Your task to perform on an android device: open app "Speedtest by Ookla" (install if not already installed) Image 0: 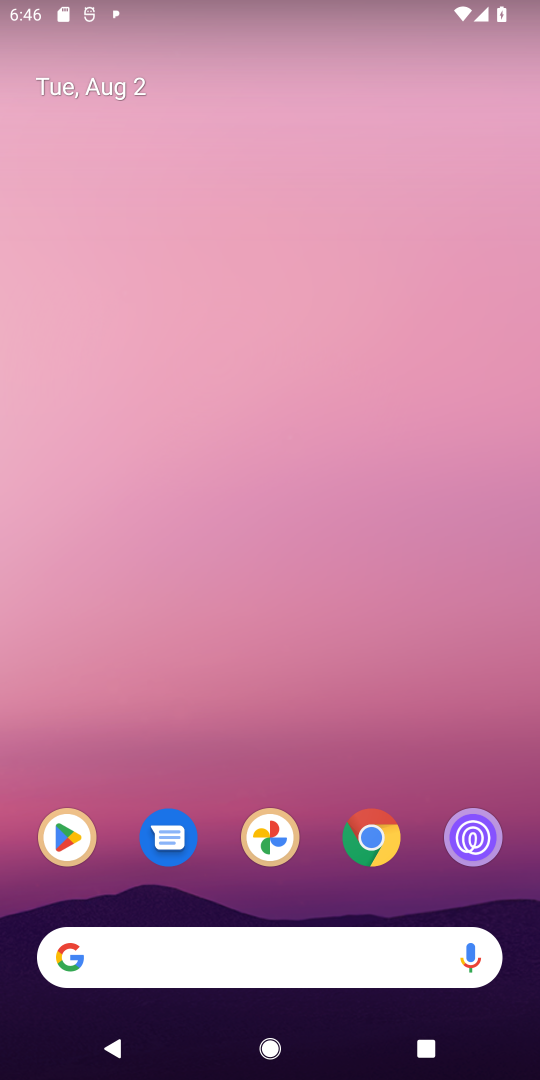
Step 0: click (70, 807)
Your task to perform on an android device: open app "Speedtest by Ookla" (install if not already installed) Image 1: 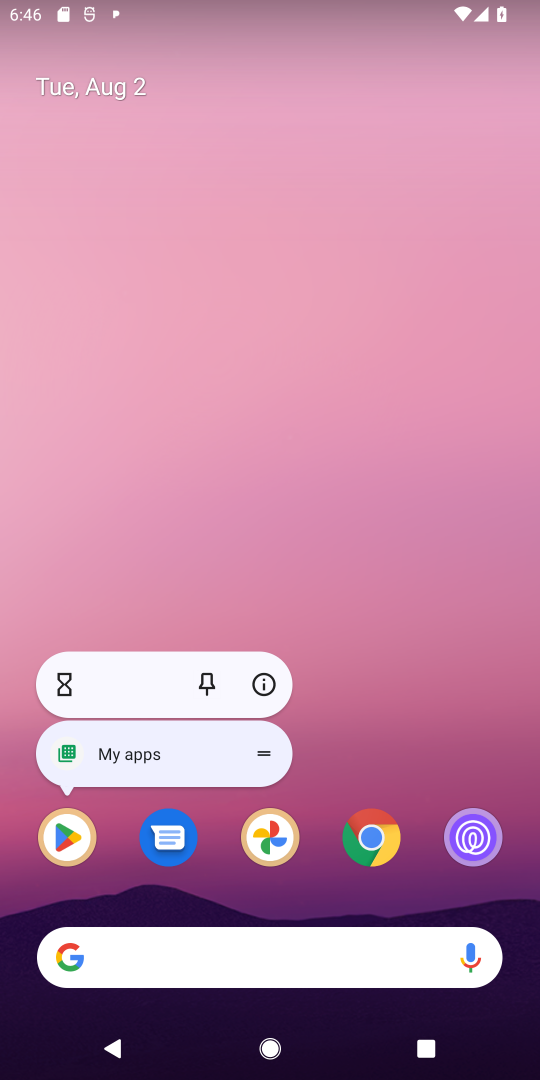
Step 1: click (49, 857)
Your task to perform on an android device: open app "Speedtest by Ookla" (install if not already installed) Image 2: 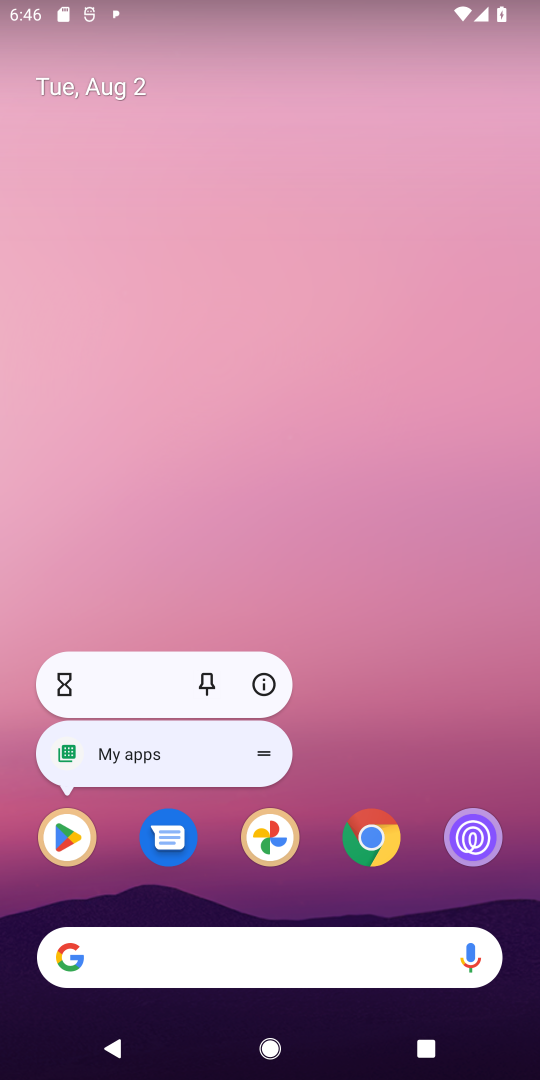
Step 2: click (72, 835)
Your task to perform on an android device: open app "Speedtest by Ookla" (install if not already installed) Image 3: 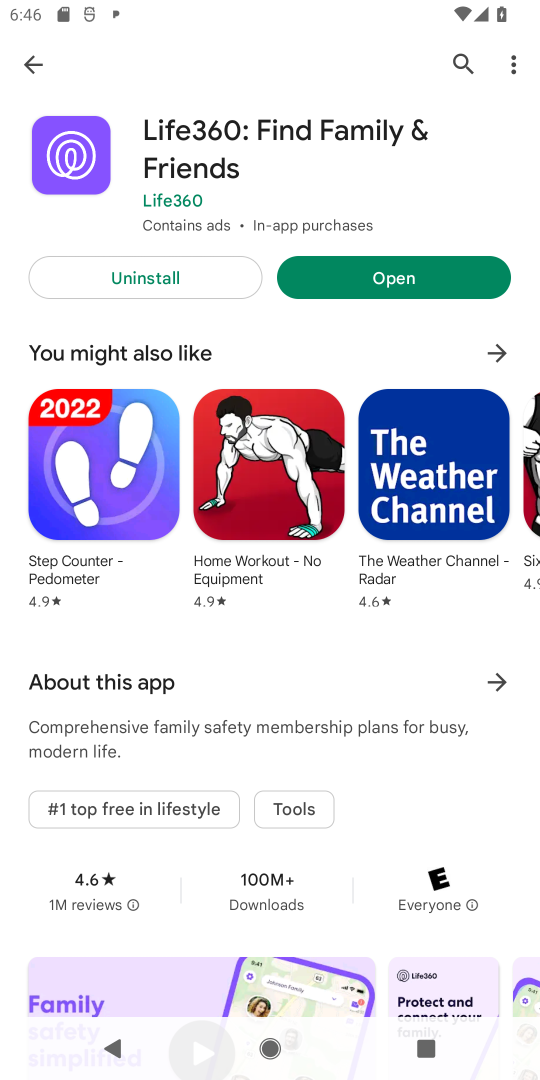
Step 3: click (449, 66)
Your task to perform on an android device: open app "Speedtest by Ookla" (install if not already installed) Image 4: 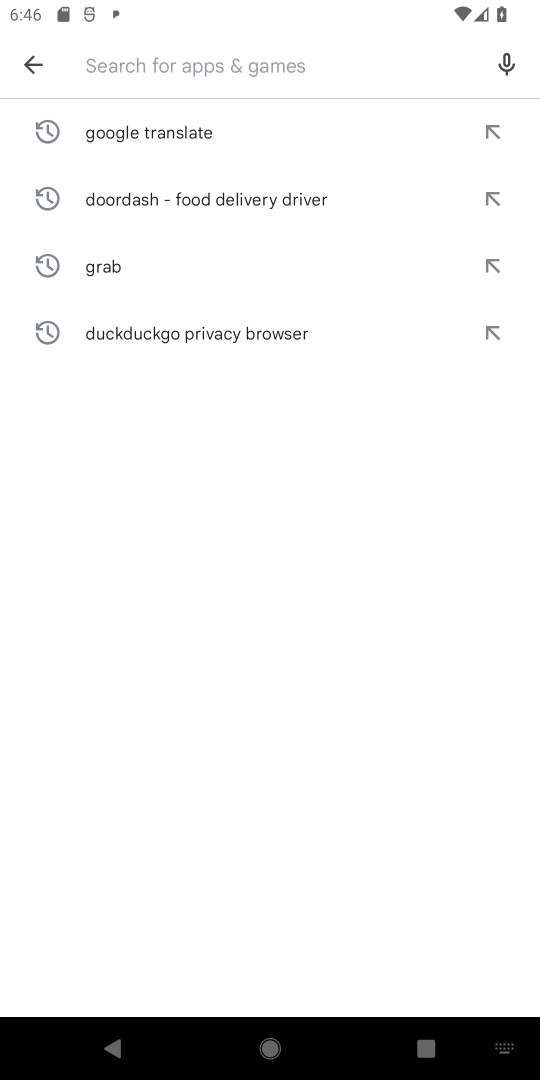
Step 4: type "Speedtest by Ookla"
Your task to perform on an android device: open app "Speedtest by Ookla" (install if not already installed) Image 5: 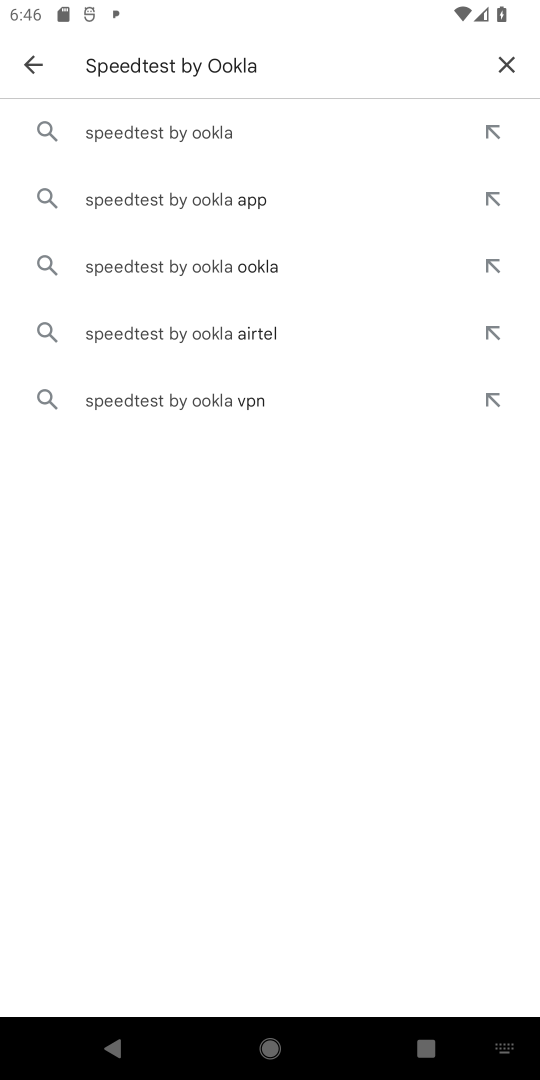
Step 5: click (179, 137)
Your task to perform on an android device: open app "Speedtest by Ookla" (install if not already installed) Image 6: 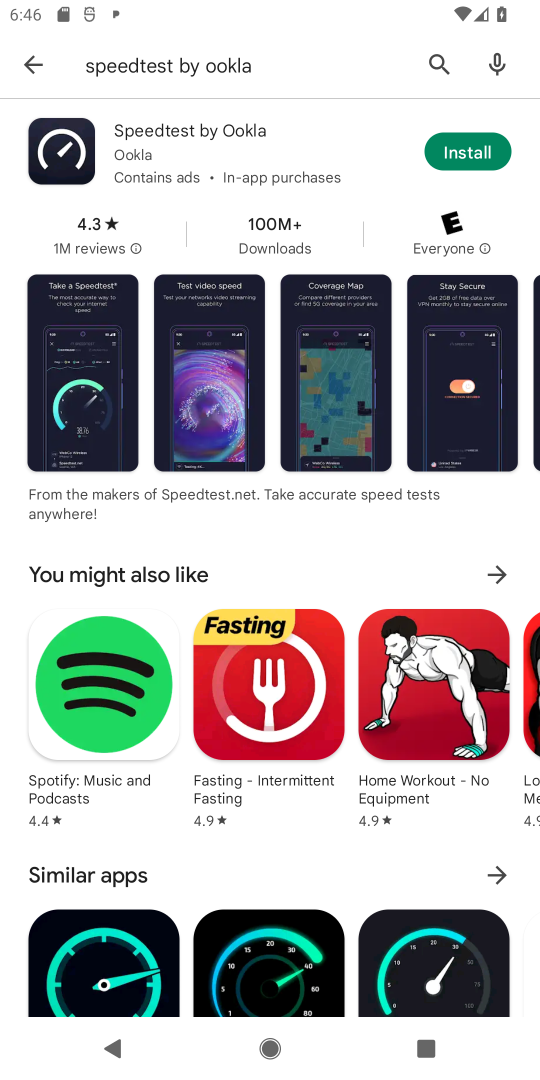
Step 6: click (460, 160)
Your task to perform on an android device: open app "Speedtest by Ookla" (install if not already installed) Image 7: 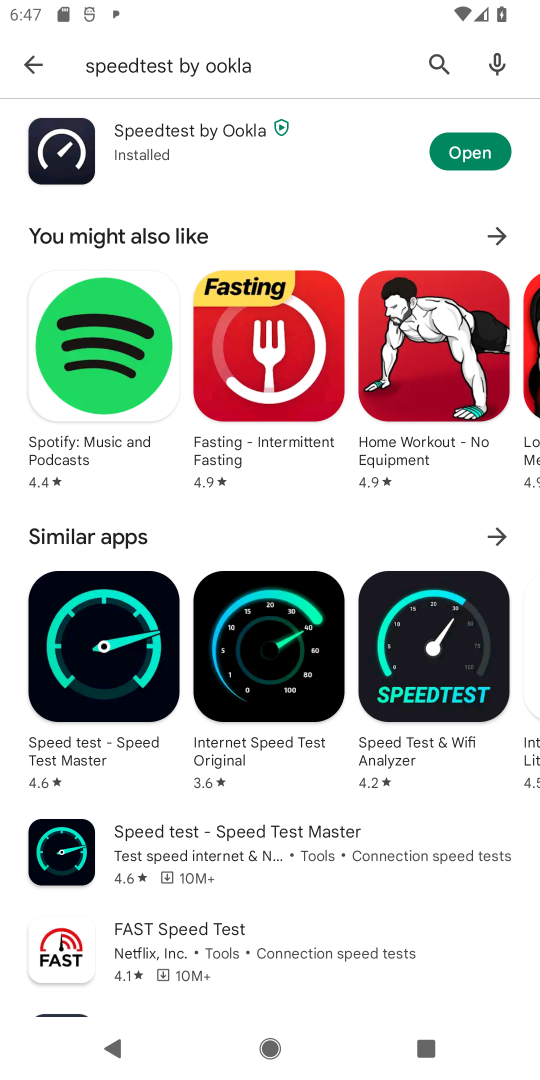
Step 7: click (476, 165)
Your task to perform on an android device: open app "Speedtest by Ookla" (install if not already installed) Image 8: 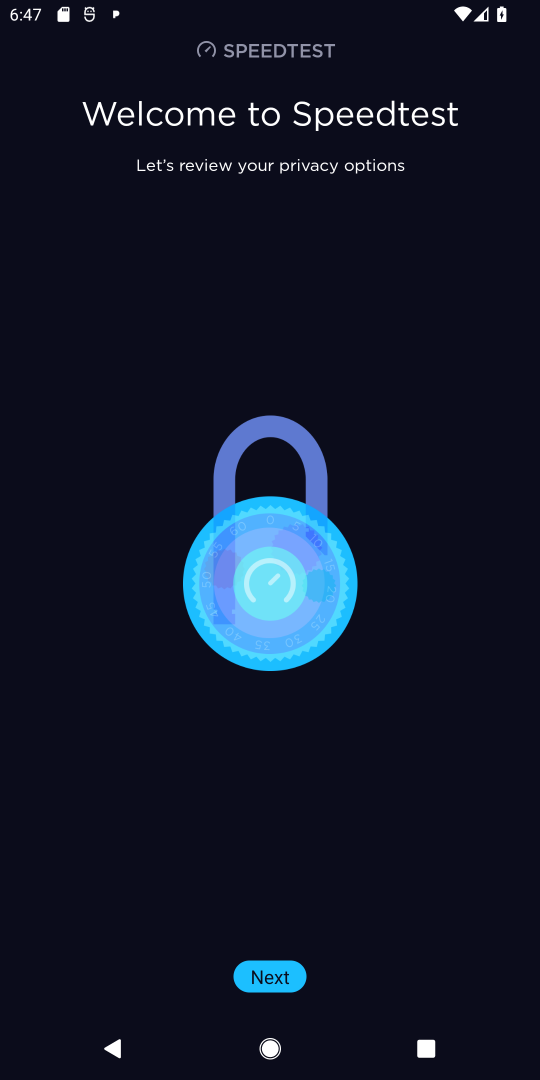
Step 8: task complete